Your task to perform on an android device: Search for sushi restaurants on Maps Image 0: 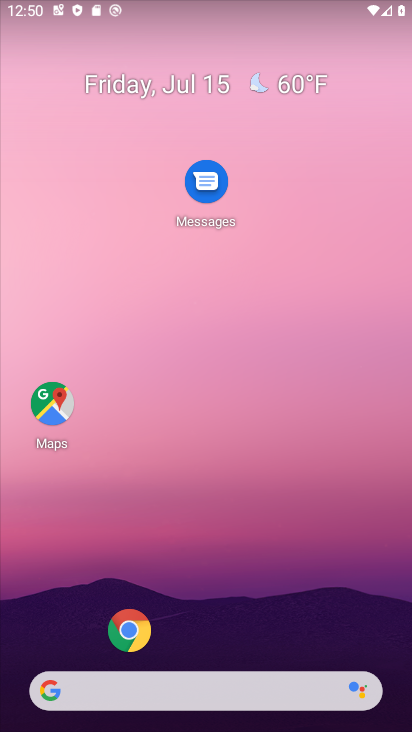
Step 0: click (66, 391)
Your task to perform on an android device: Search for sushi restaurants on Maps Image 1: 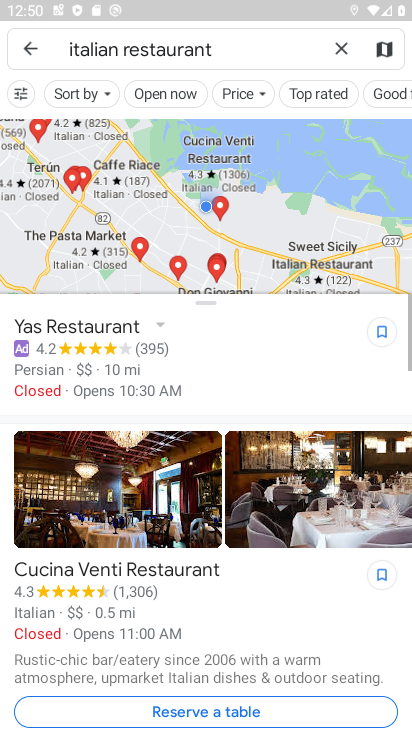
Step 1: click (343, 46)
Your task to perform on an android device: Search for sushi restaurants on Maps Image 2: 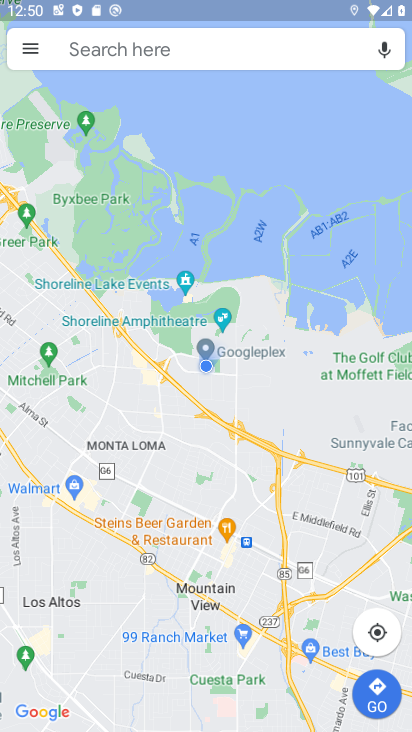
Step 2: click (99, 42)
Your task to perform on an android device: Search for sushi restaurants on Maps Image 3: 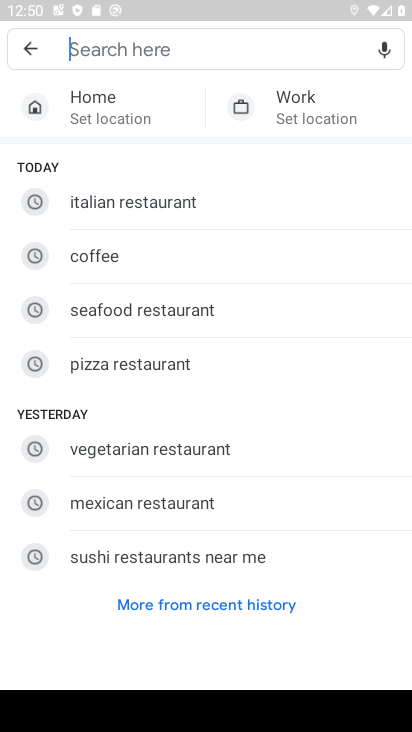
Step 3: type "sushi restaurants"
Your task to perform on an android device: Search for sushi restaurants on Maps Image 4: 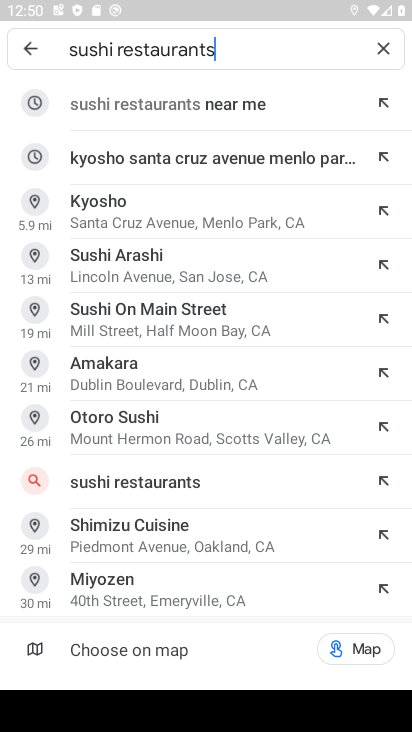
Step 4: type ""
Your task to perform on an android device: Search for sushi restaurants on Maps Image 5: 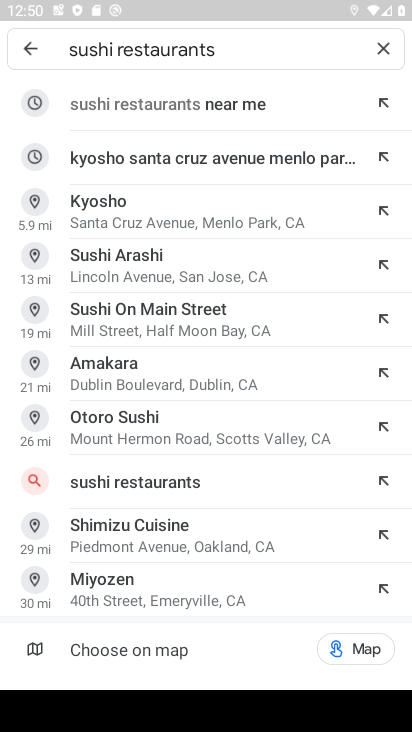
Step 5: type ""
Your task to perform on an android device: Search for sushi restaurants on Maps Image 6: 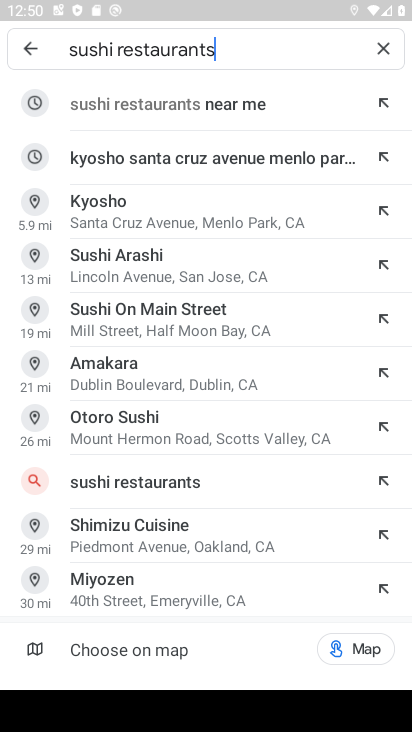
Step 6: task complete